Your task to perform on an android device: add a contact Image 0: 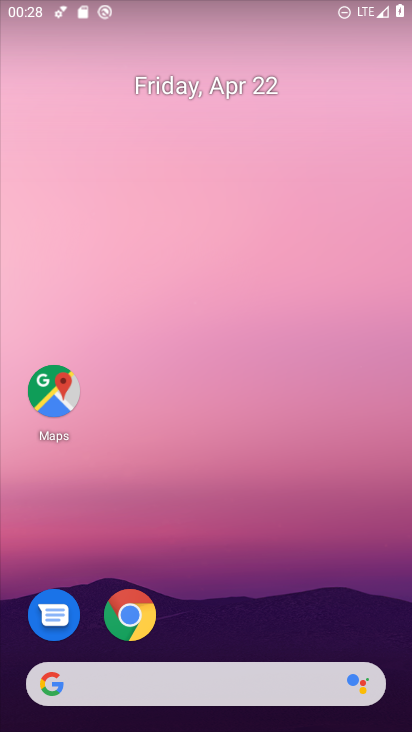
Step 0: click (243, 14)
Your task to perform on an android device: add a contact Image 1: 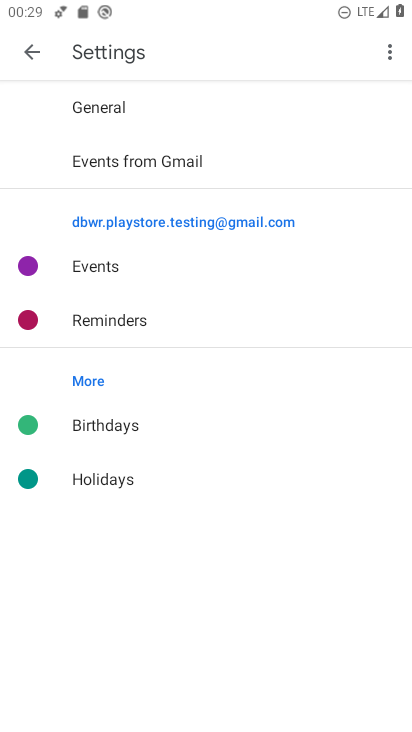
Step 1: press home button
Your task to perform on an android device: add a contact Image 2: 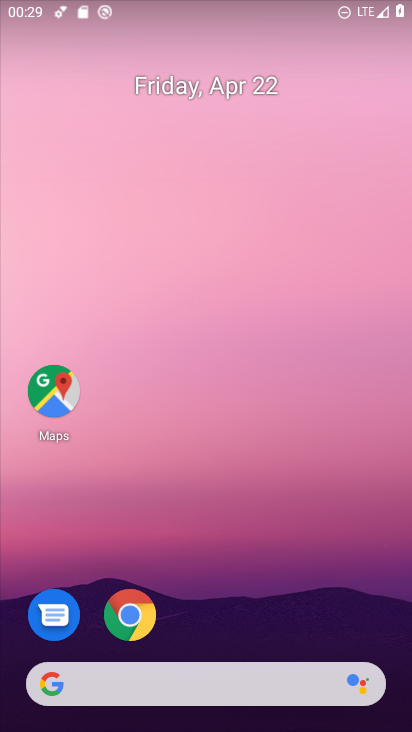
Step 2: drag from (221, 650) to (250, 81)
Your task to perform on an android device: add a contact Image 3: 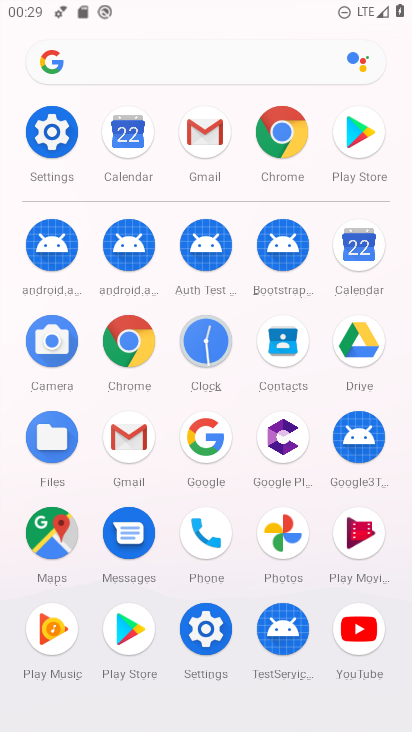
Step 3: click (281, 335)
Your task to perform on an android device: add a contact Image 4: 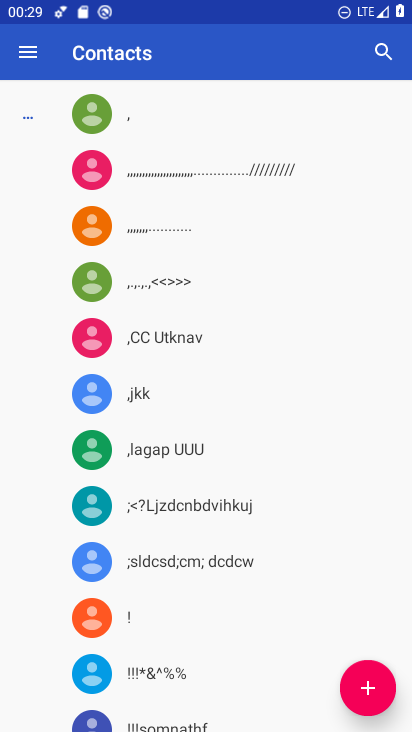
Step 4: click (366, 686)
Your task to perform on an android device: add a contact Image 5: 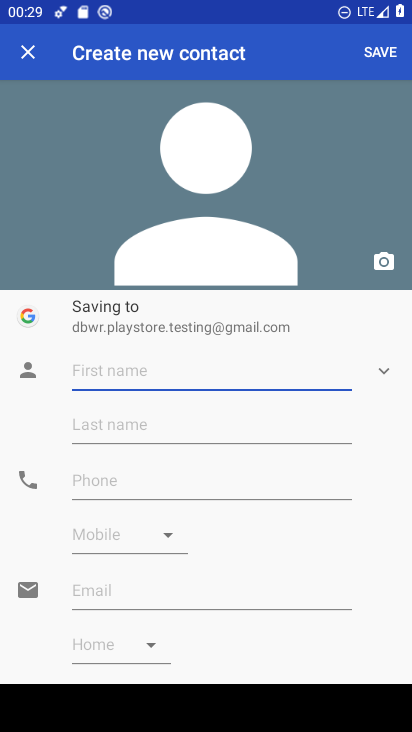
Step 5: type "fdsfda"
Your task to perform on an android device: add a contact Image 6: 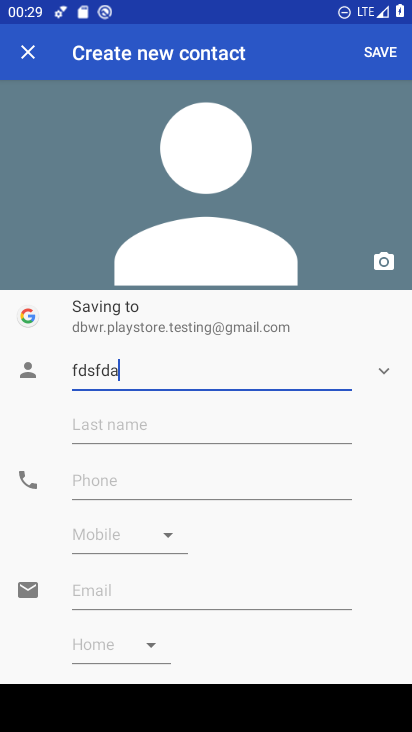
Step 6: click (376, 56)
Your task to perform on an android device: add a contact Image 7: 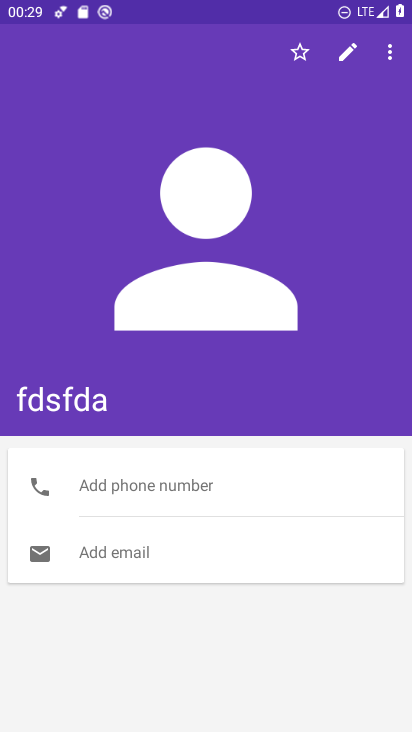
Step 7: task complete